Your task to perform on an android device: toggle wifi Image 0: 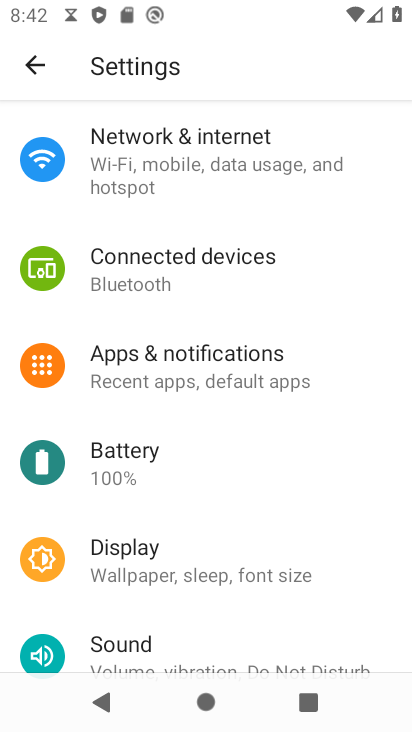
Step 0: click (169, 166)
Your task to perform on an android device: toggle wifi Image 1: 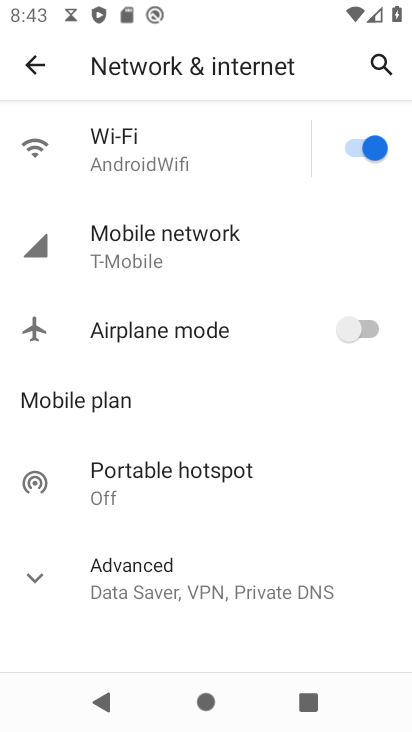
Step 1: click (371, 156)
Your task to perform on an android device: toggle wifi Image 2: 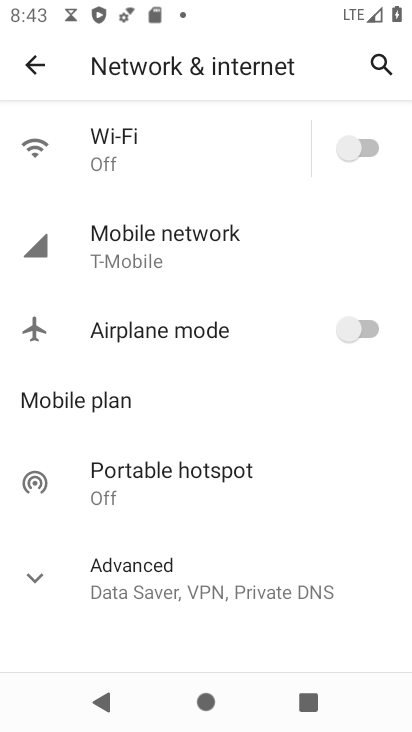
Step 2: task complete